Your task to perform on an android device: Add "dell alienware" to the cart on amazon.com Image 0: 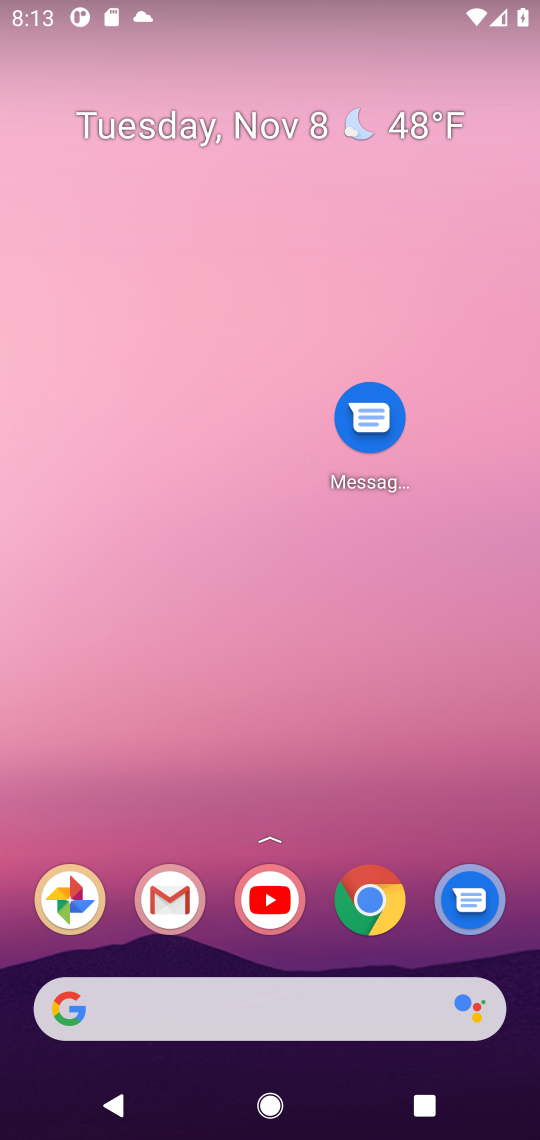
Step 0: drag from (287, 955) to (351, 202)
Your task to perform on an android device: Add "dell alienware" to the cart on amazon.com Image 1: 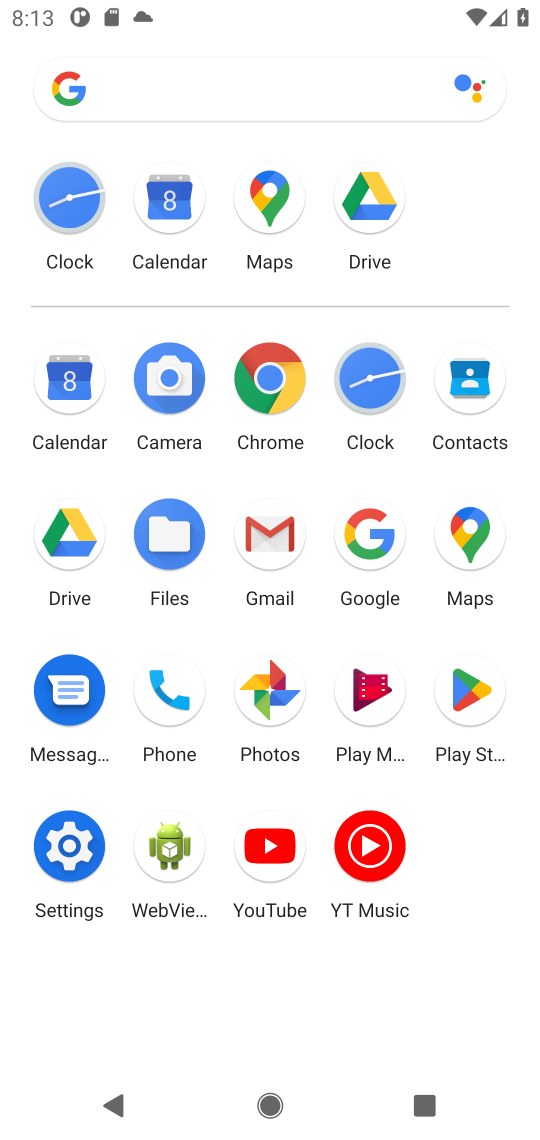
Step 1: click (364, 547)
Your task to perform on an android device: Add "dell alienware" to the cart on amazon.com Image 2: 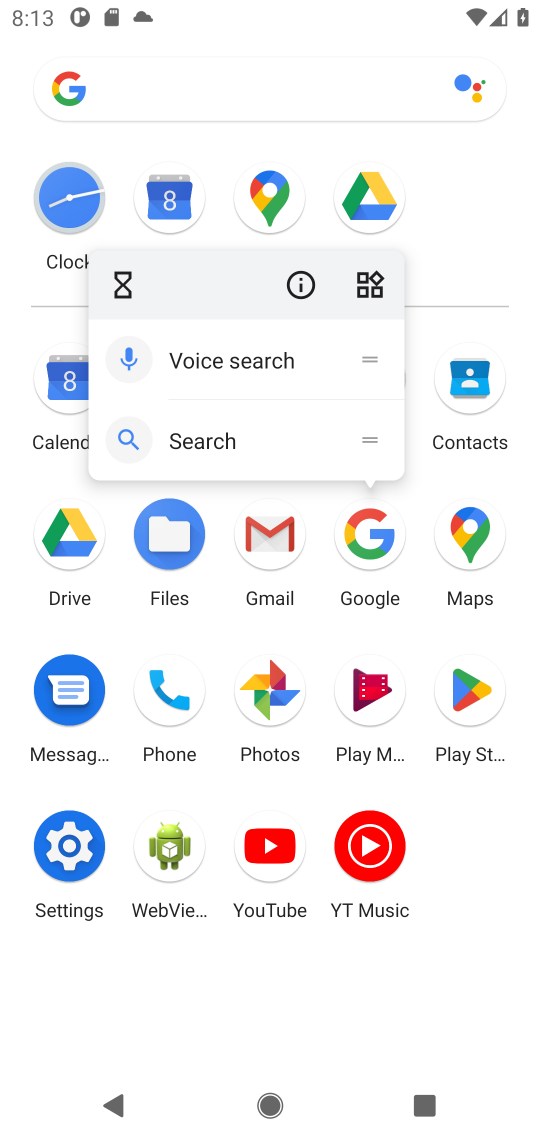
Step 2: click (364, 537)
Your task to perform on an android device: Add "dell alienware" to the cart on amazon.com Image 3: 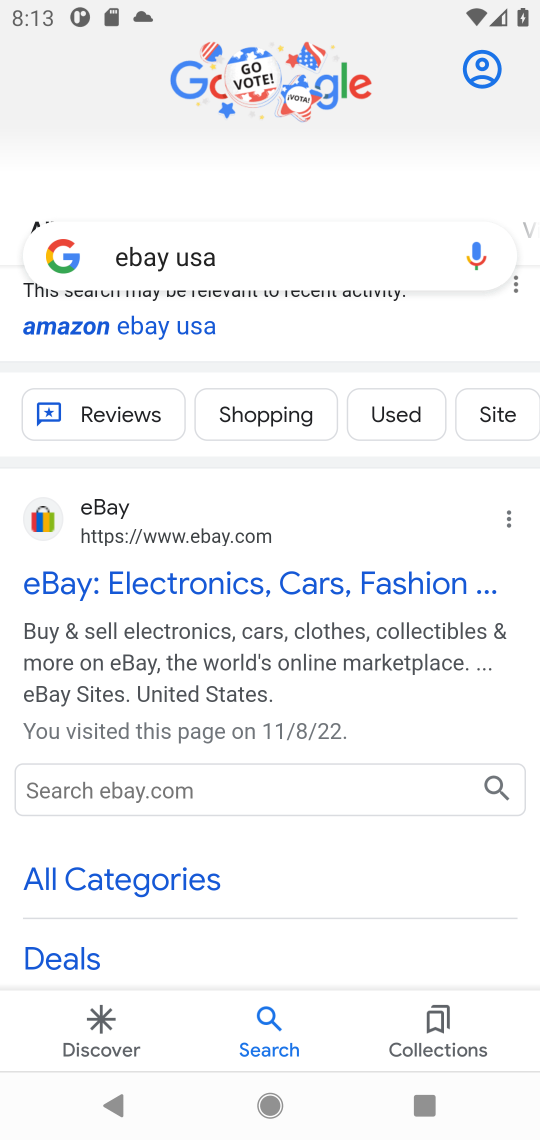
Step 3: click (314, 259)
Your task to perform on an android device: Add "dell alienware" to the cart on amazon.com Image 4: 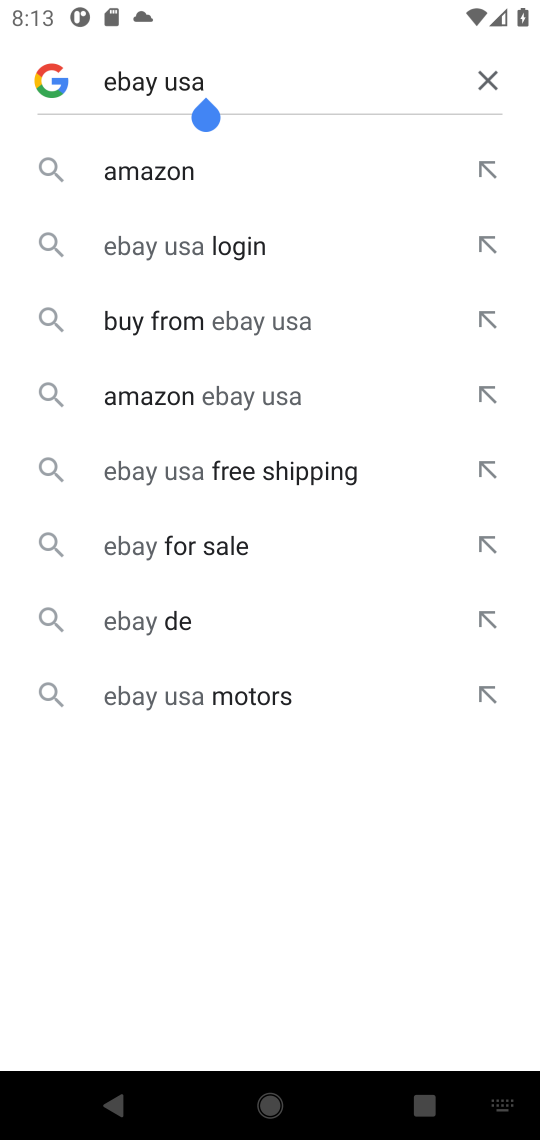
Step 4: click (487, 79)
Your task to perform on an android device: Add "dell alienware" to the cart on amazon.com Image 5: 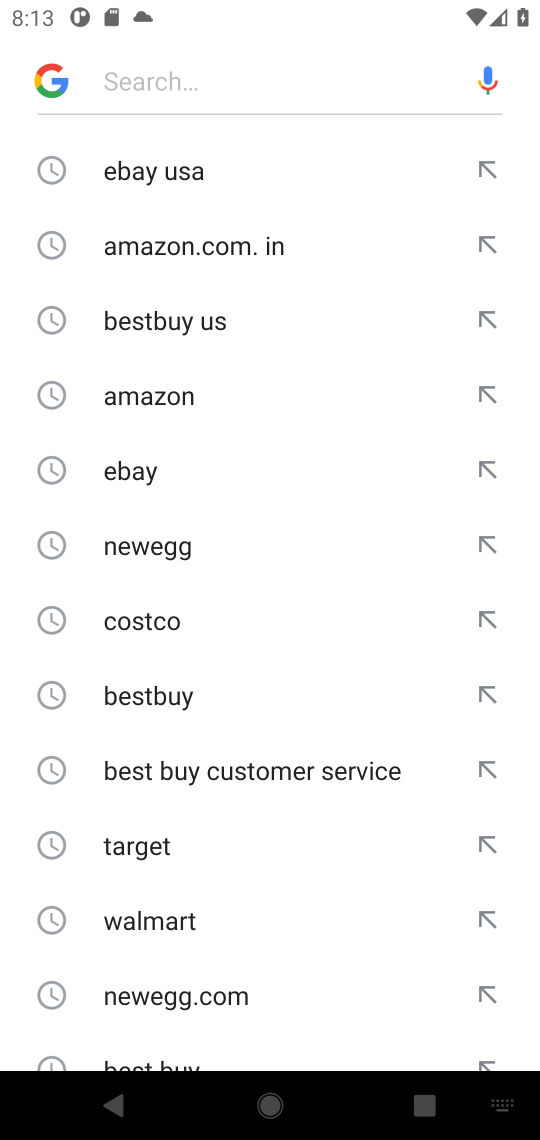
Step 5: click (129, 60)
Your task to perform on an android device: Add "dell alienware" to the cart on amazon.com Image 6: 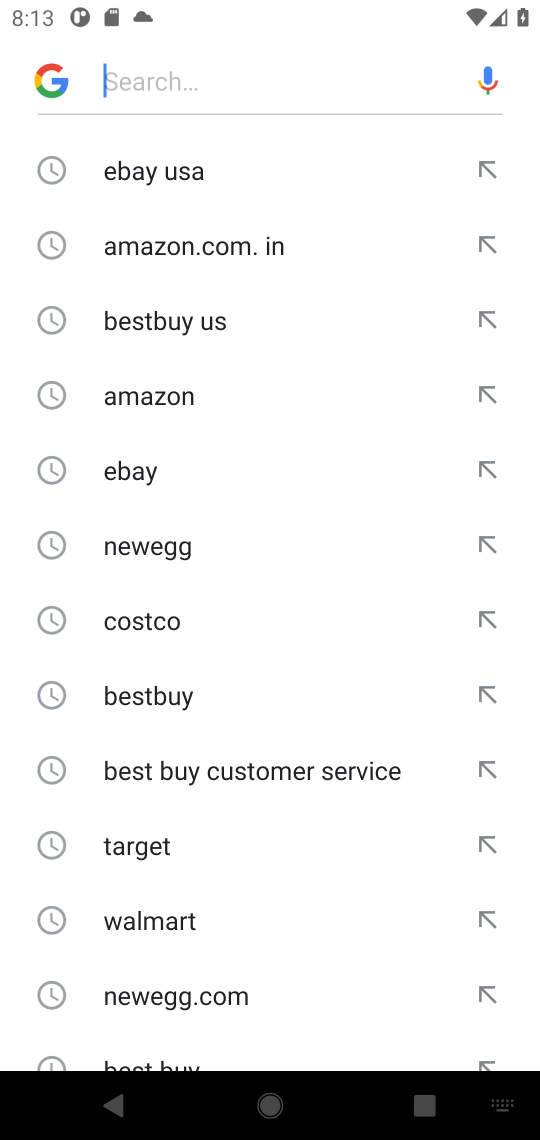
Step 6: type "amazon "
Your task to perform on an android device: Add "dell alienware" to the cart on amazon.com Image 7: 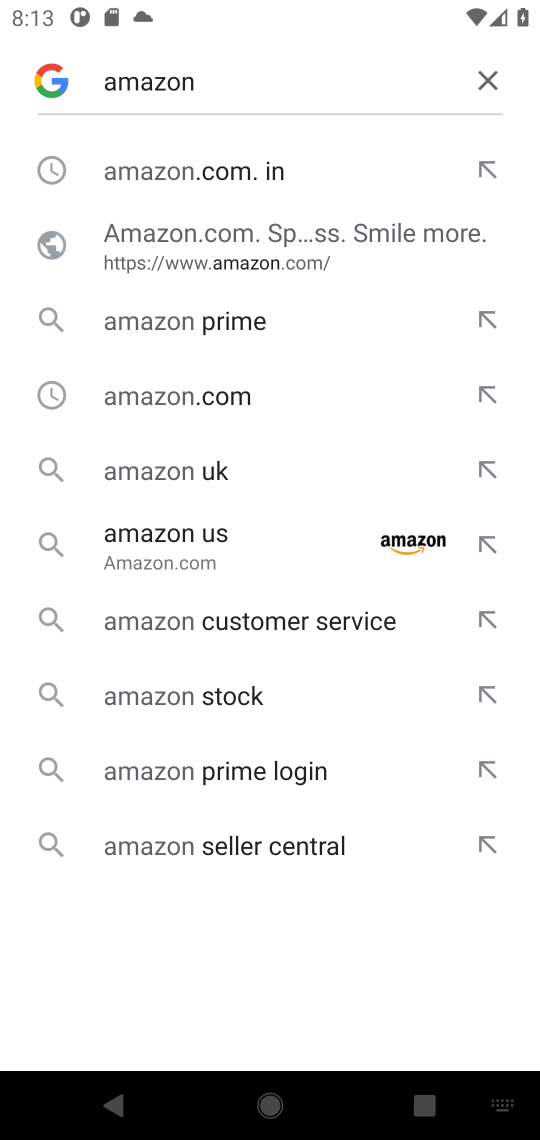
Step 7: click (184, 171)
Your task to perform on an android device: Add "dell alienware" to the cart on amazon.com Image 8: 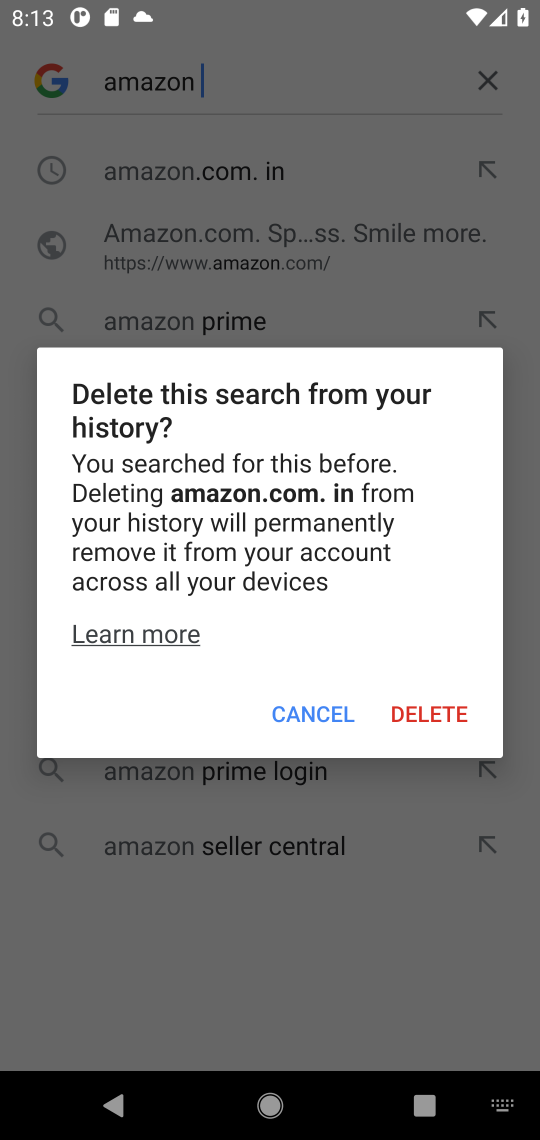
Step 8: click (330, 714)
Your task to perform on an android device: Add "dell alienware" to the cart on amazon.com Image 9: 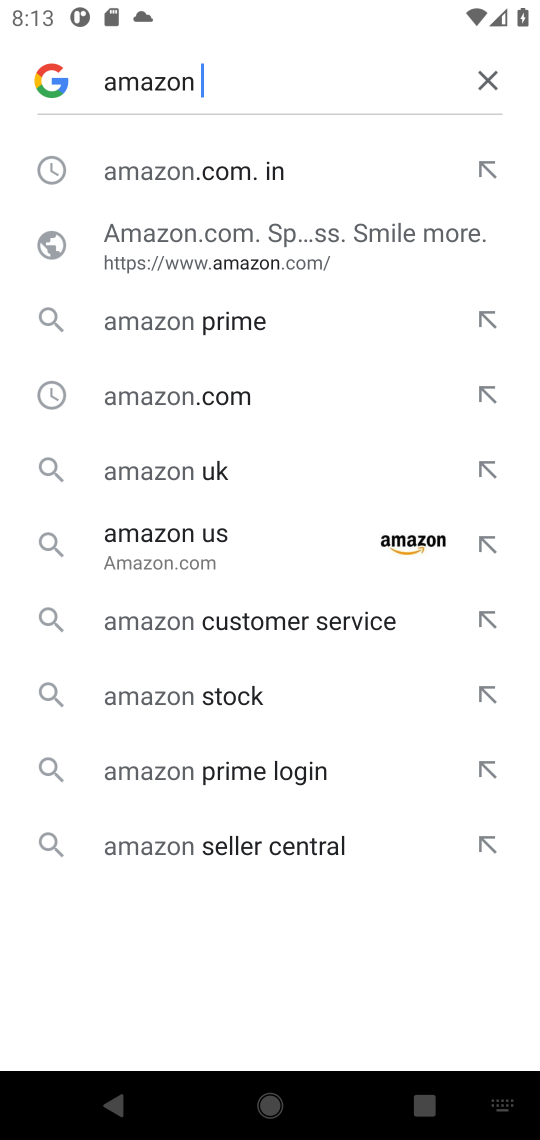
Step 9: click (250, 229)
Your task to perform on an android device: Add "dell alienware" to the cart on amazon.com Image 10: 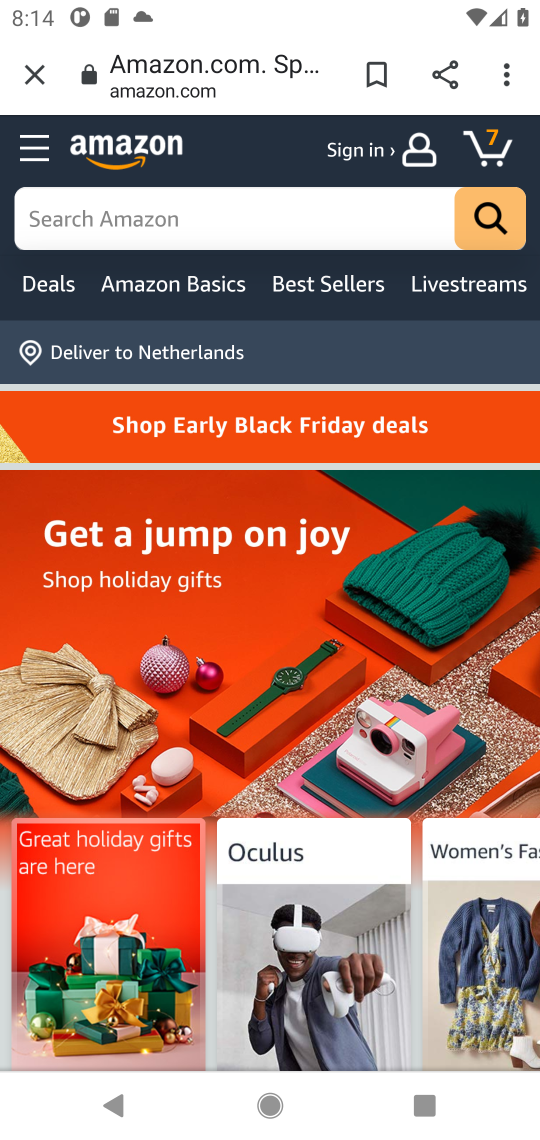
Step 10: click (139, 213)
Your task to perform on an android device: Add "dell alienware" to the cart on amazon.com Image 11: 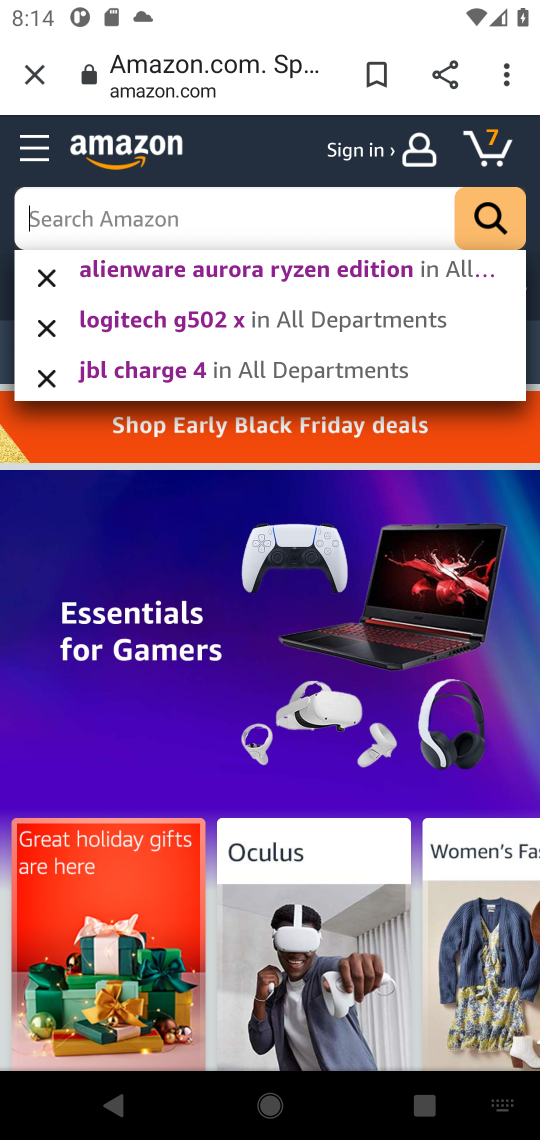
Step 11: click (189, 208)
Your task to perform on an android device: Add "dell alienware" to the cart on amazon.com Image 12: 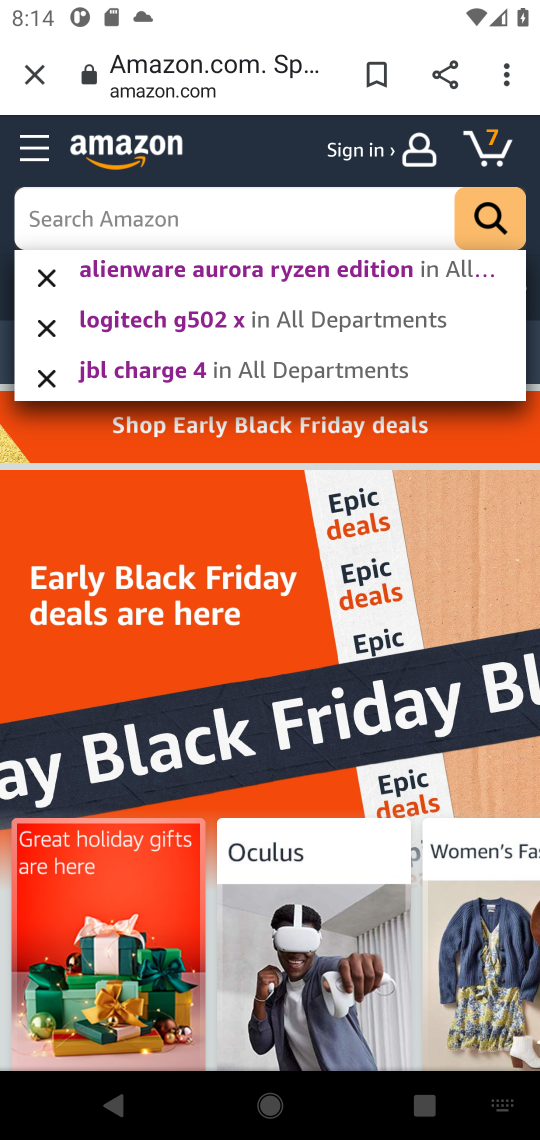
Step 12: type "dell alienware "
Your task to perform on an android device: Add "dell alienware" to the cart on amazon.com Image 13: 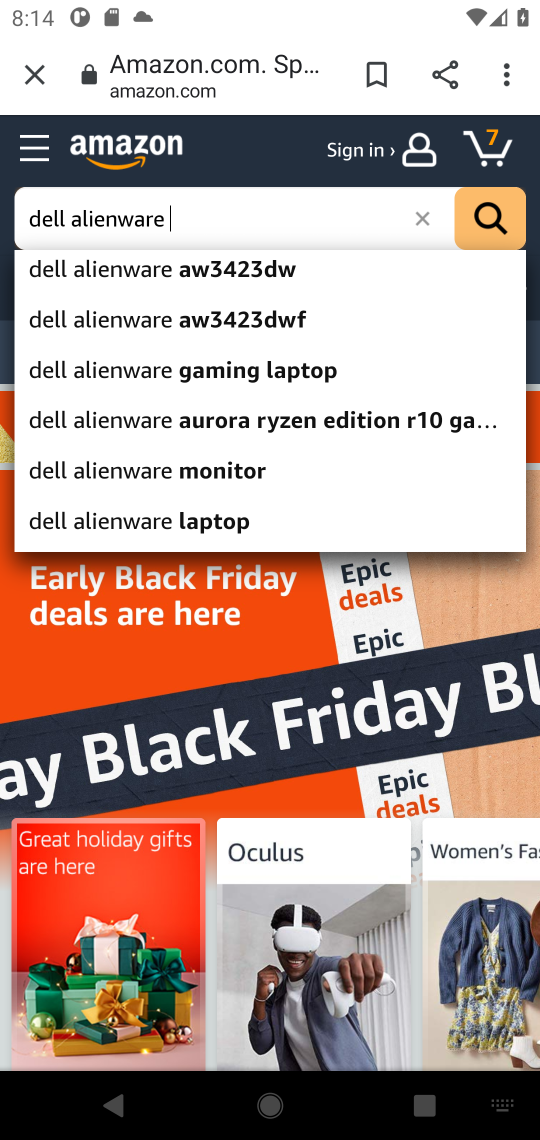
Step 13: click (257, 267)
Your task to perform on an android device: Add "dell alienware" to the cart on amazon.com Image 14: 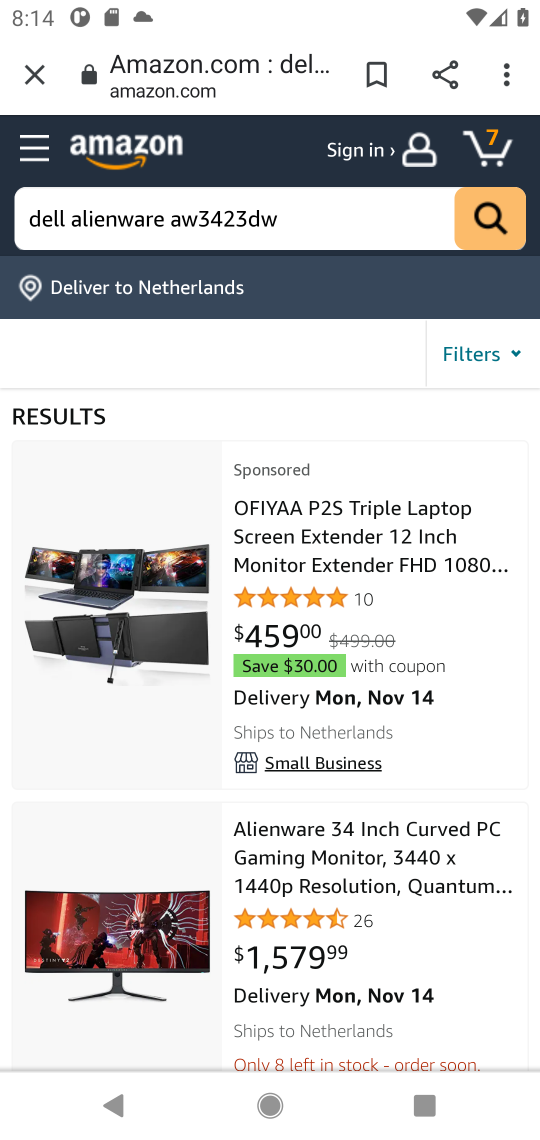
Step 14: click (363, 833)
Your task to perform on an android device: Add "dell alienware" to the cart on amazon.com Image 15: 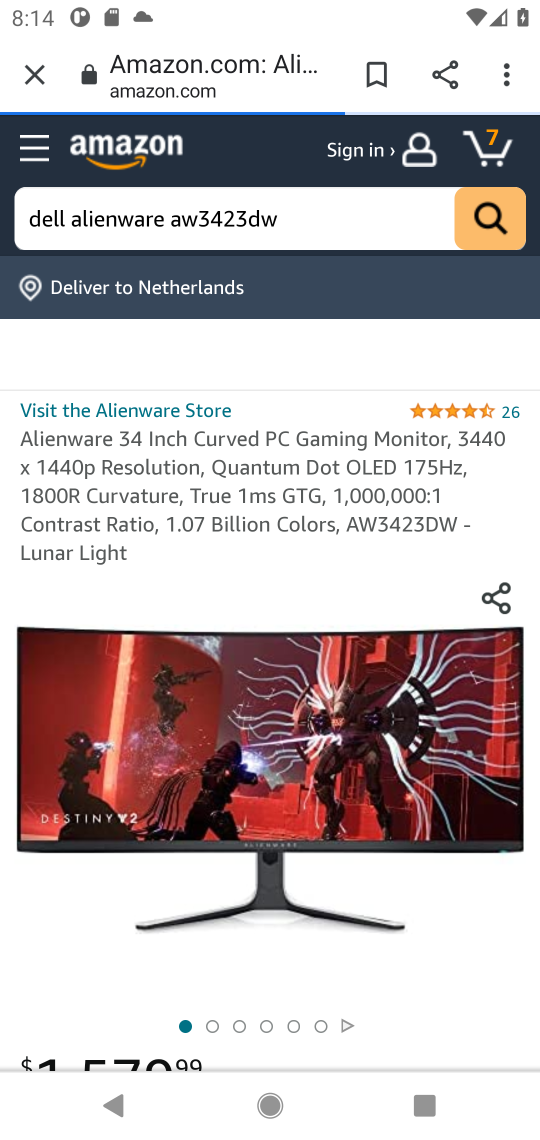
Step 15: drag from (356, 992) to (367, 450)
Your task to perform on an android device: Add "dell alienware" to the cart on amazon.com Image 16: 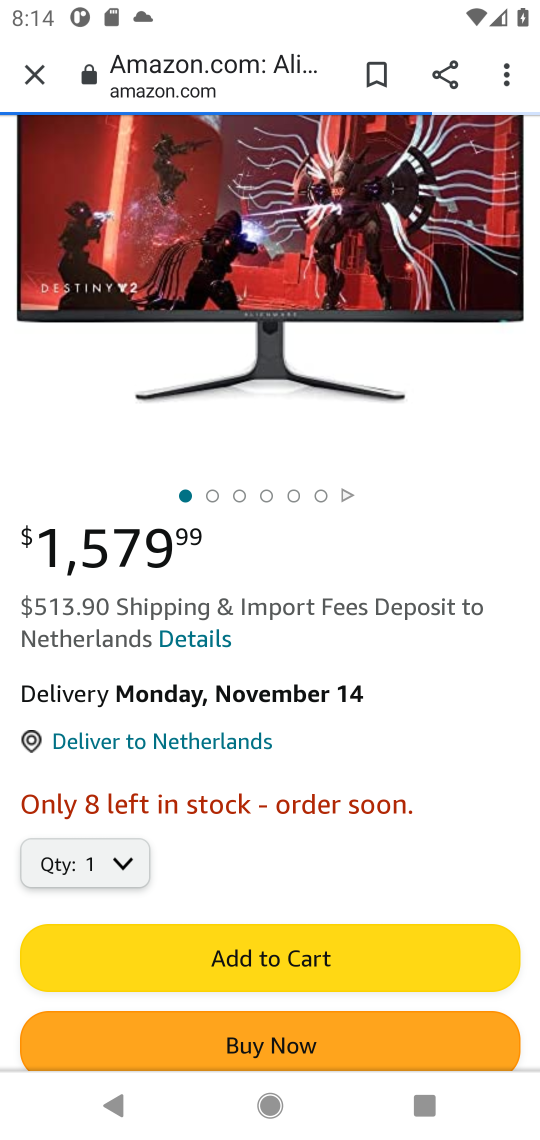
Step 16: click (299, 944)
Your task to perform on an android device: Add "dell alienware" to the cart on amazon.com Image 17: 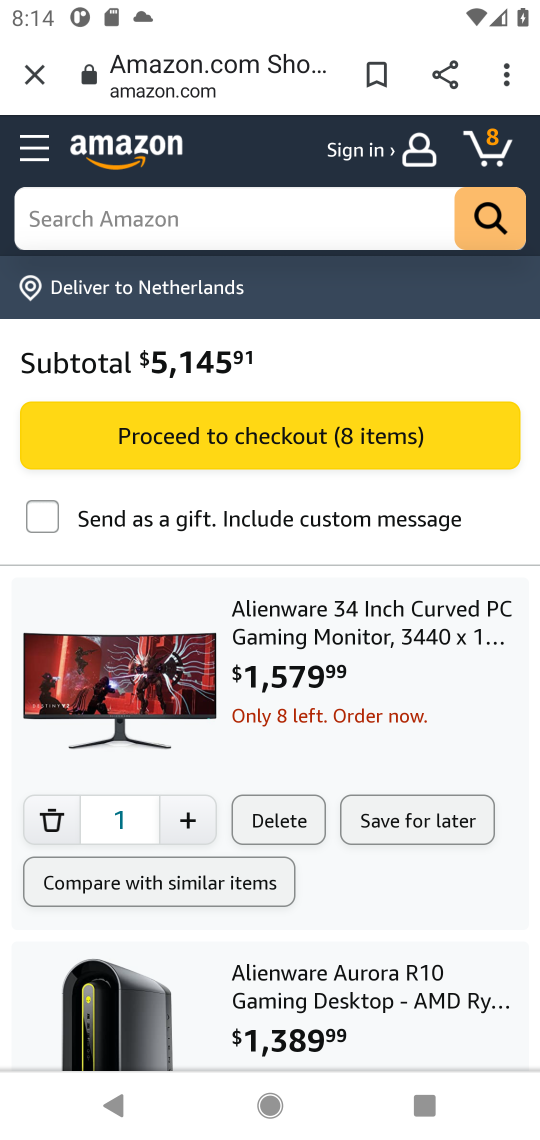
Step 17: task complete